Your task to perform on an android device: Go to Reddit.com Image 0: 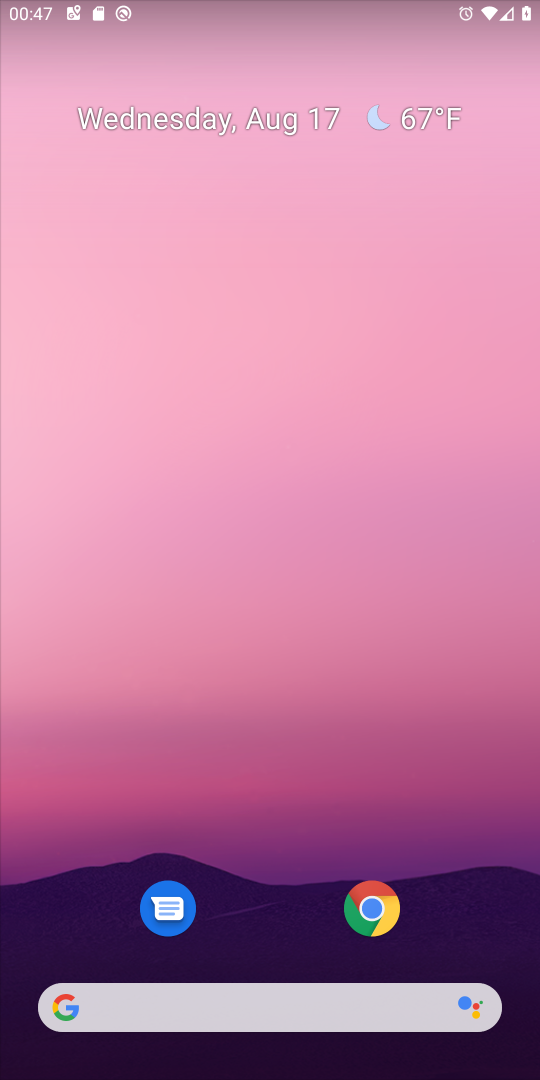
Step 0: click (366, 926)
Your task to perform on an android device: Go to Reddit.com Image 1: 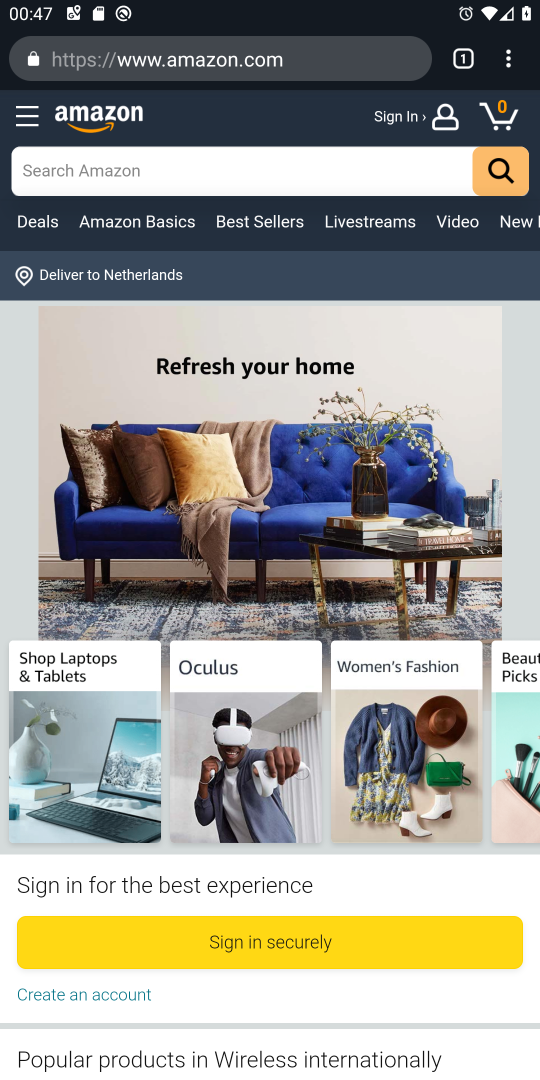
Step 1: click (459, 61)
Your task to perform on an android device: Go to Reddit.com Image 2: 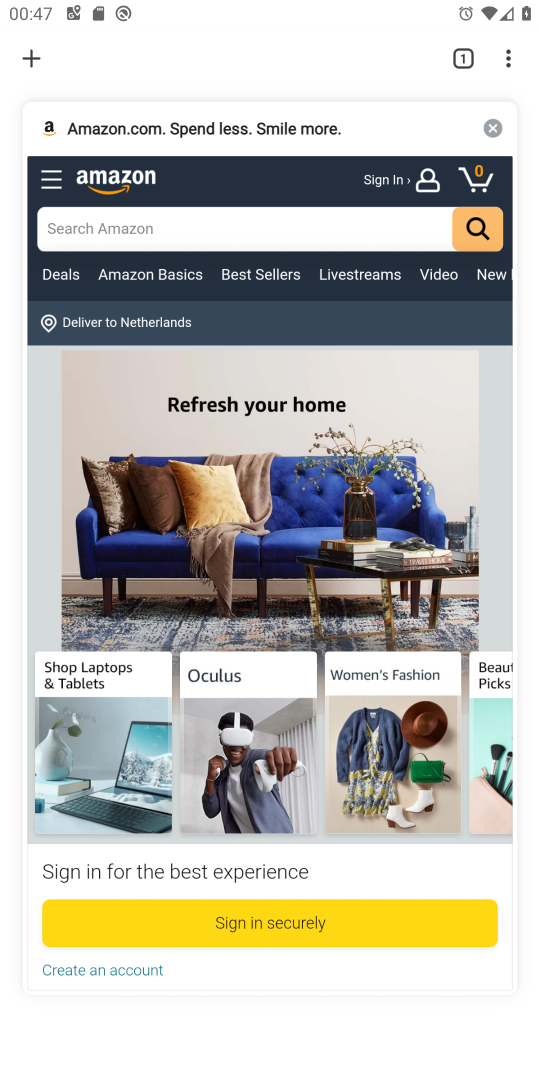
Step 2: click (35, 53)
Your task to perform on an android device: Go to Reddit.com Image 3: 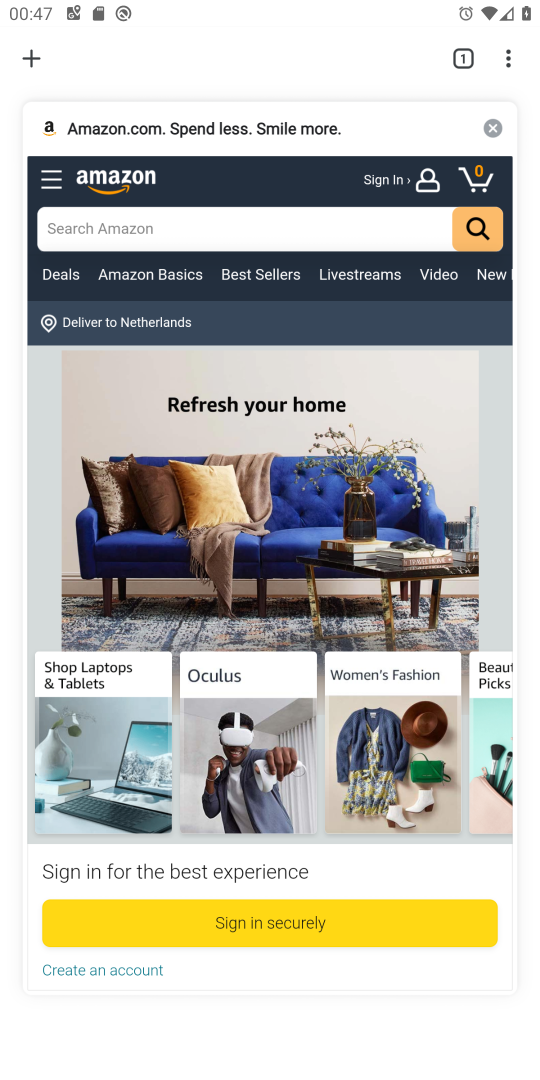
Step 3: click (75, 91)
Your task to perform on an android device: Go to Reddit.com Image 4: 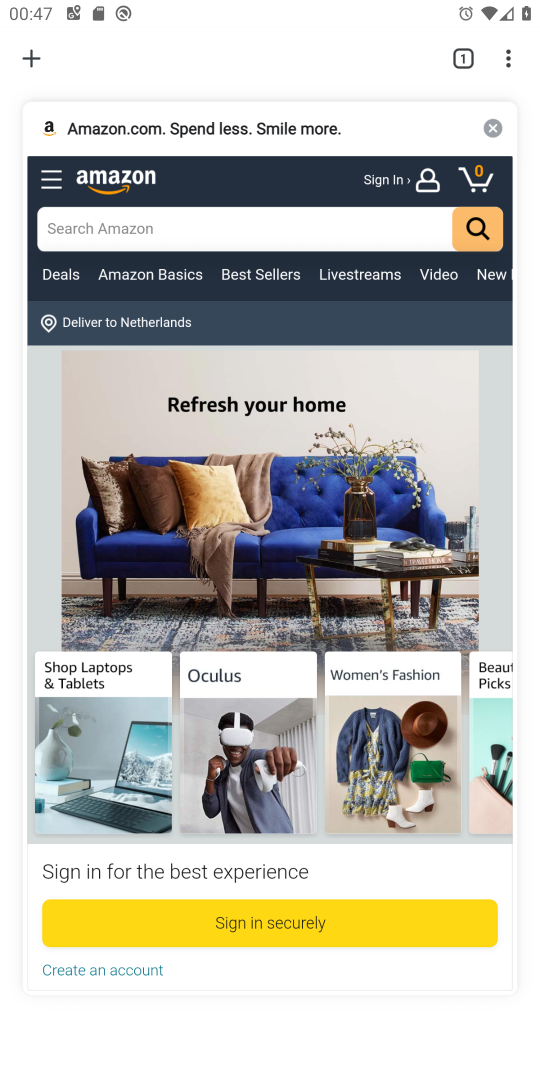
Step 4: click (36, 54)
Your task to perform on an android device: Go to Reddit.com Image 5: 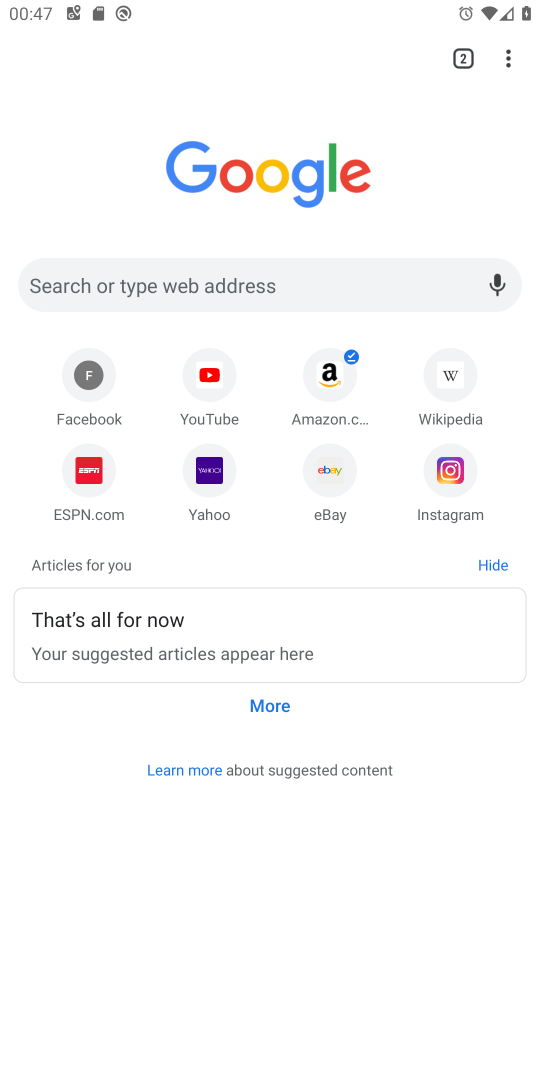
Step 5: click (225, 278)
Your task to perform on an android device: Go to Reddit.com Image 6: 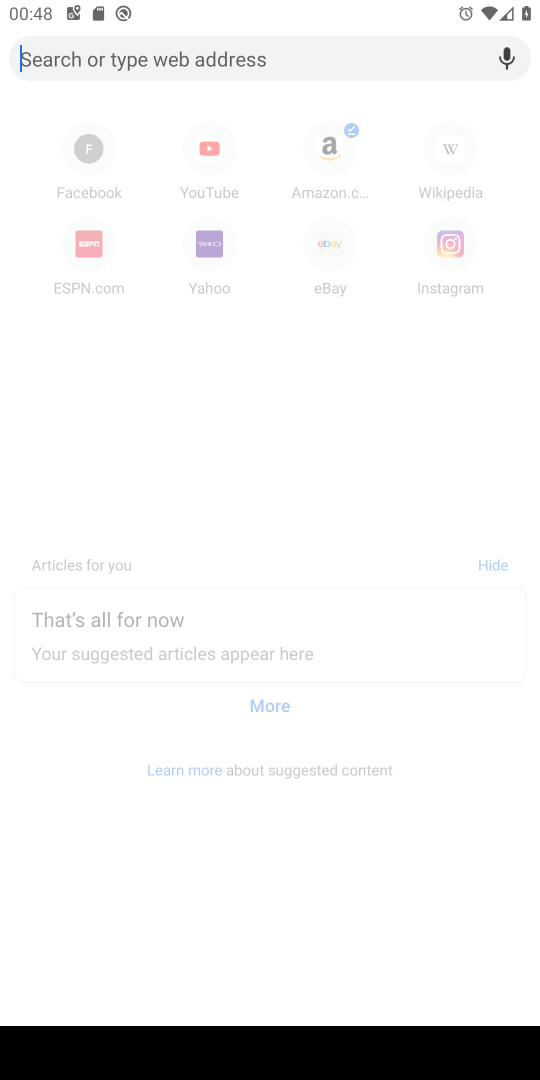
Step 6: type "Reddit.com"
Your task to perform on an android device: Go to Reddit.com Image 7: 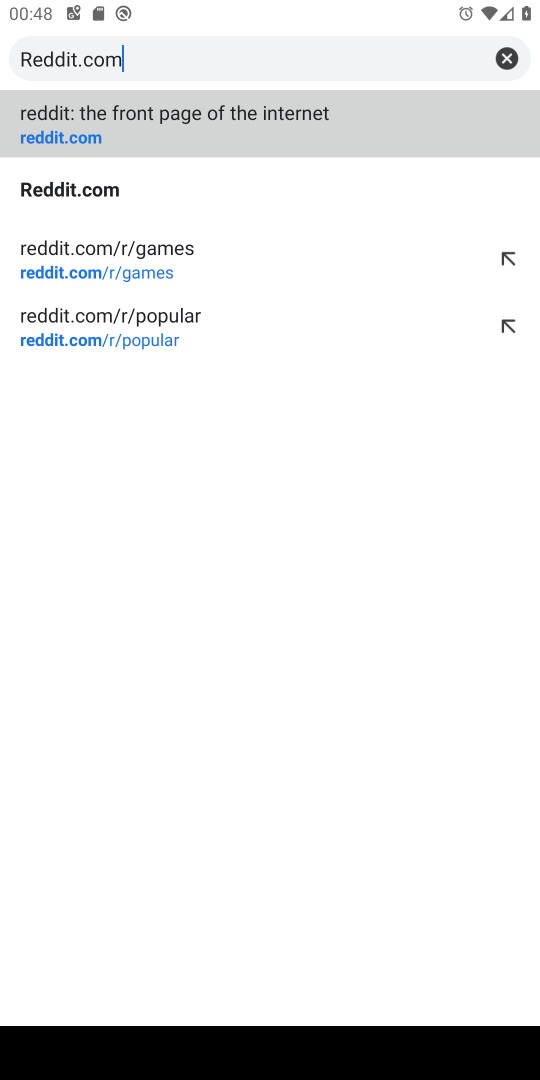
Step 7: type ""
Your task to perform on an android device: Go to Reddit.com Image 8: 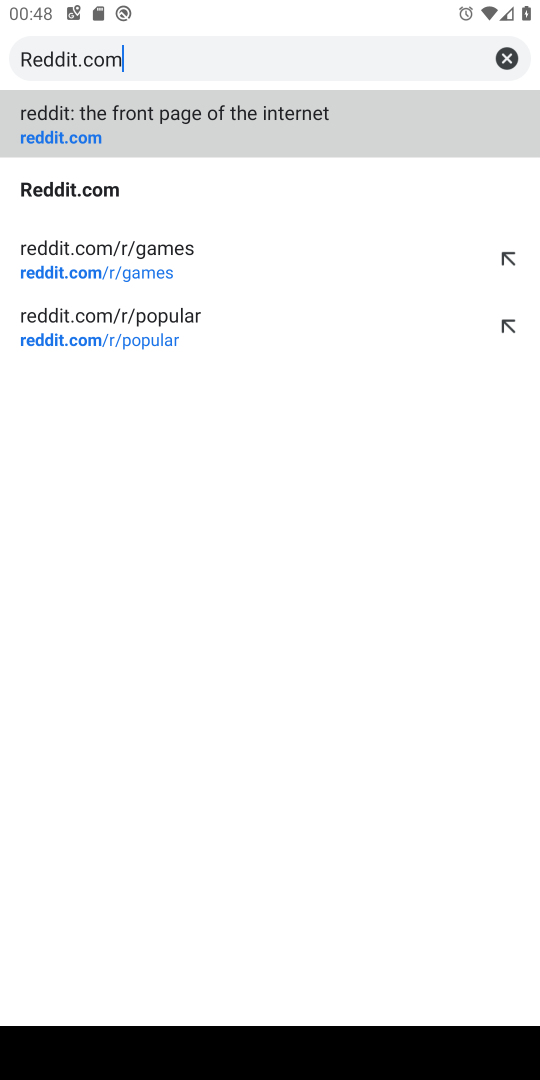
Step 8: click (116, 122)
Your task to perform on an android device: Go to Reddit.com Image 9: 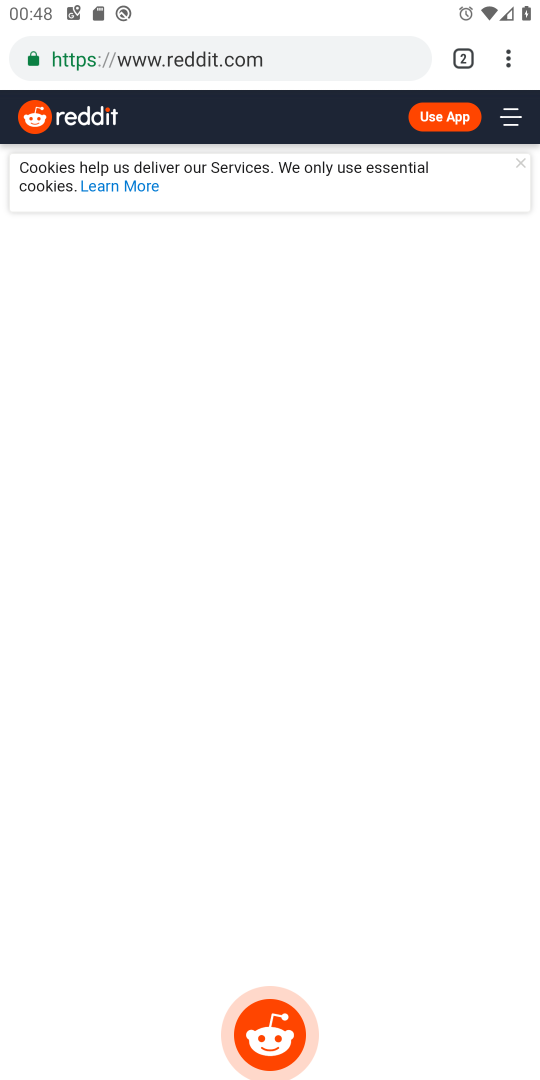
Step 9: task complete